Your task to perform on an android device: empty trash in google photos Image 0: 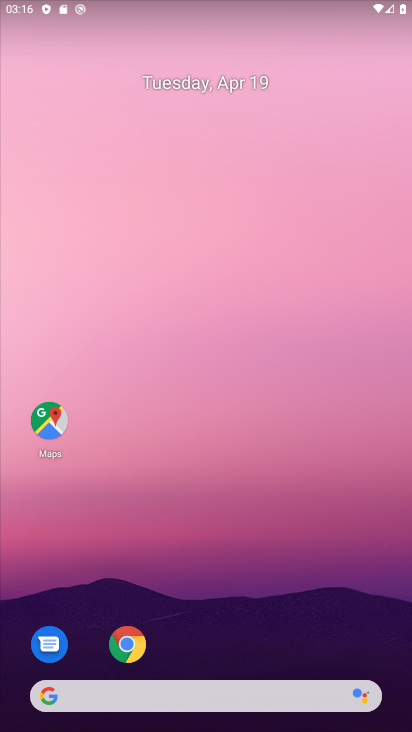
Step 0: drag from (372, 624) to (334, 127)
Your task to perform on an android device: empty trash in google photos Image 1: 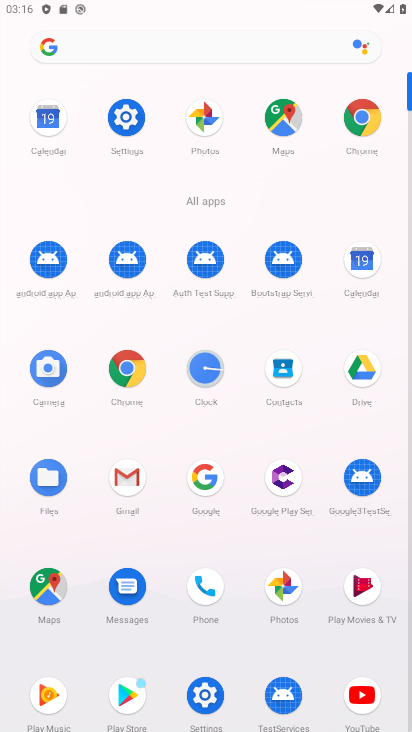
Step 1: click (278, 586)
Your task to perform on an android device: empty trash in google photos Image 2: 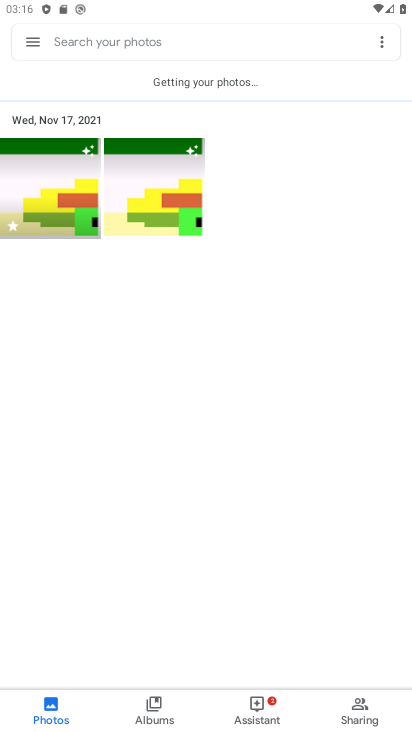
Step 2: click (28, 39)
Your task to perform on an android device: empty trash in google photos Image 3: 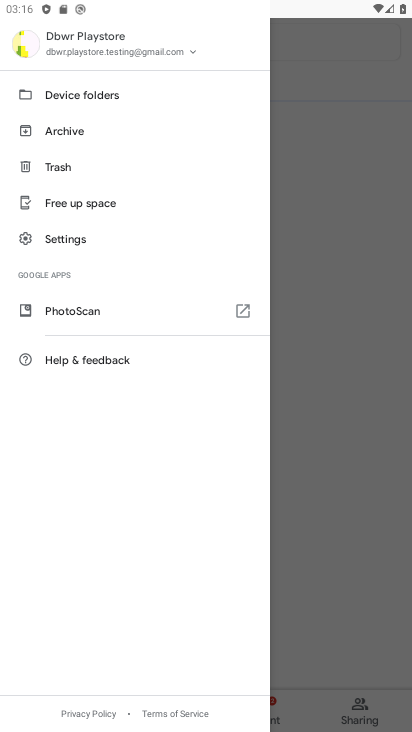
Step 3: click (66, 166)
Your task to perform on an android device: empty trash in google photos Image 4: 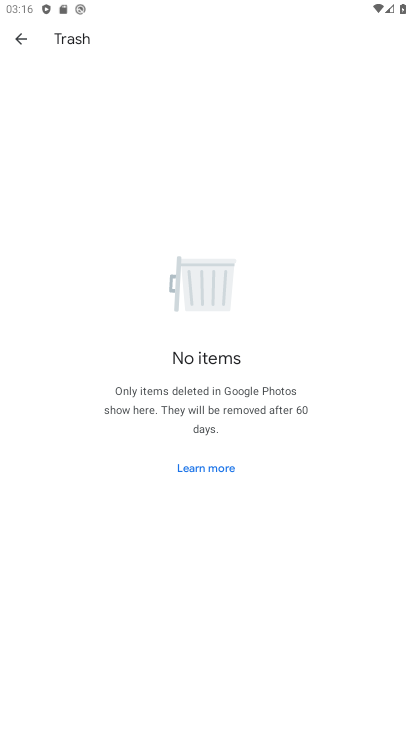
Step 4: task complete